Your task to perform on an android device: see sites visited before in the chrome app Image 0: 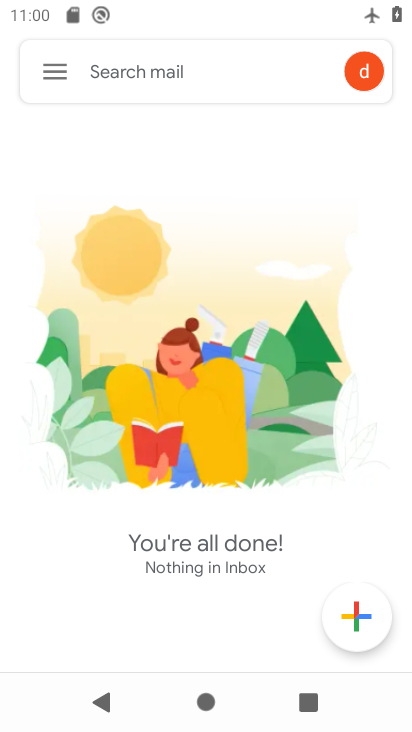
Step 0: press home button
Your task to perform on an android device: see sites visited before in the chrome app Image 1: 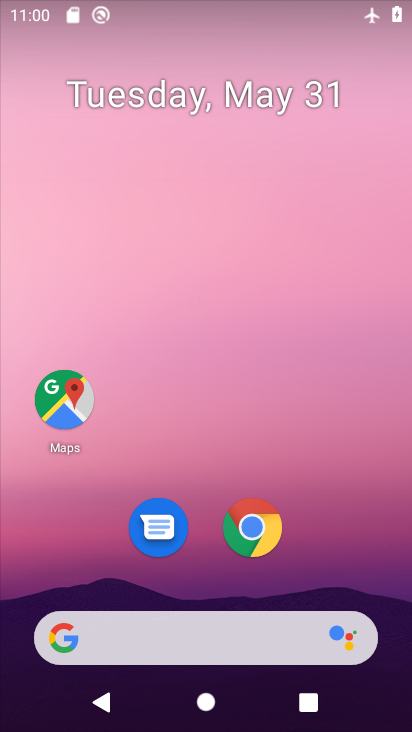
Step 1: click (262, 533)
Your task to perform on an android device: see sites visited before in the chrome app Image 2: 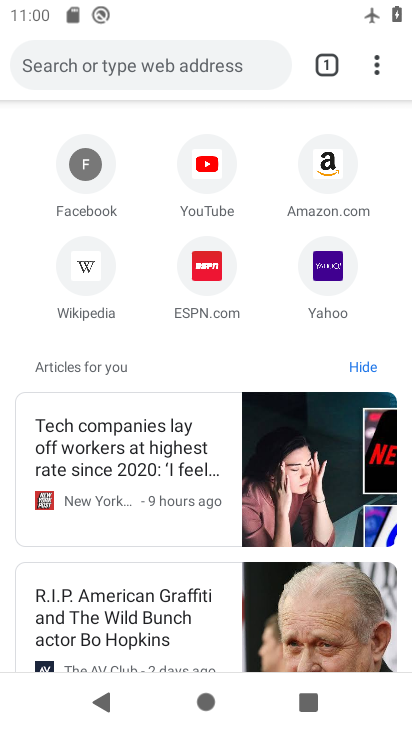
Step 2: click (379, 68)
Your task to perform on an android device: see sites visited before in the chrome app Image 3: 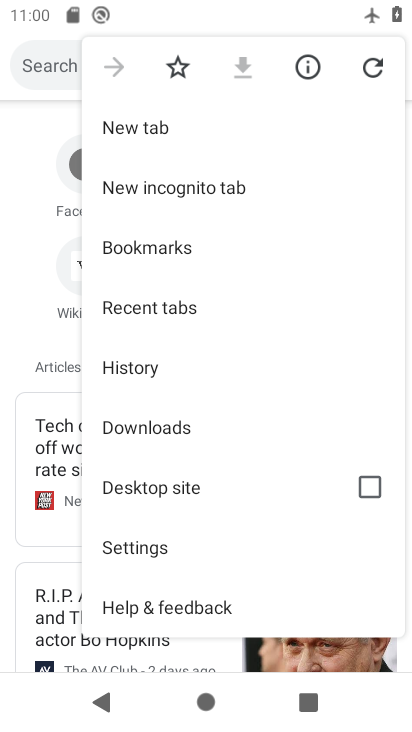
Step 3: click (129, 368)
Your task to perform on an android device: see sites visited before in the chrome app Image 4: 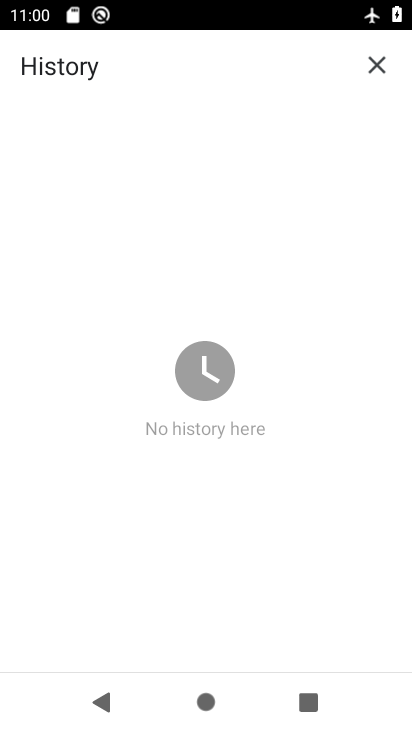
Step 4: task complete